Your task to perform on an android device: turn notification dots on Image 0: 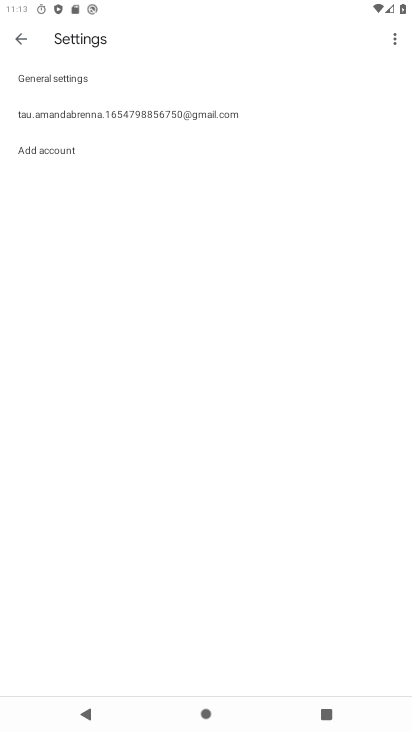
Step 0: press home button
Your task to perform on an android device: turn notification dots on Image 1: 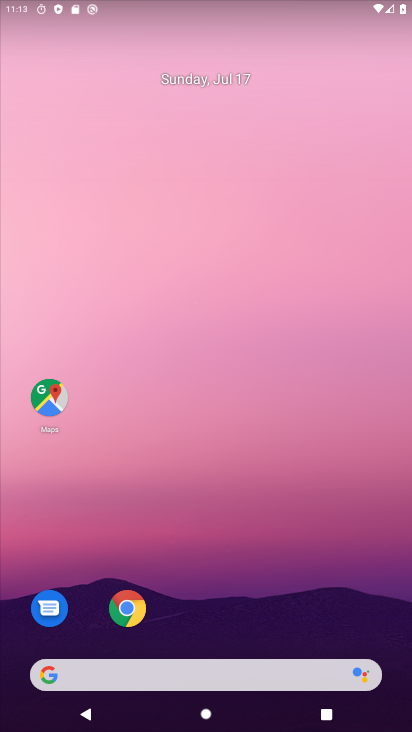
Step 1: drag from (255, 604) to (272, 91)
Your task to perform on an android device: turn notification dots on Image 2: 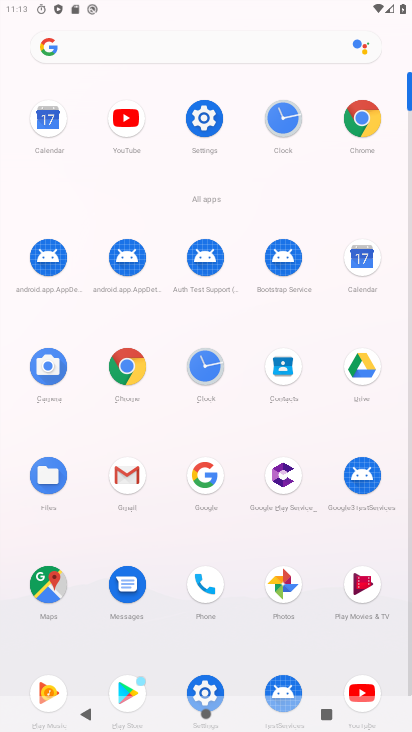
Step 2: click (208, 117)
Your task to perform on an android device: turn notification dots on Image 3: 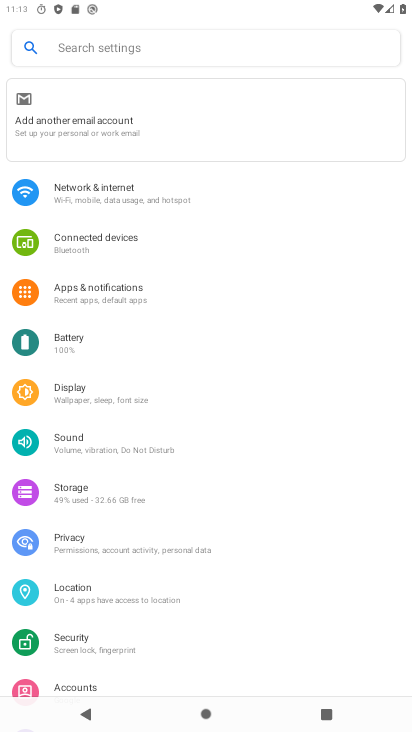
Step 3: click (131, 300)
Your task to perform on an android device: turn notification dots on Image 4: 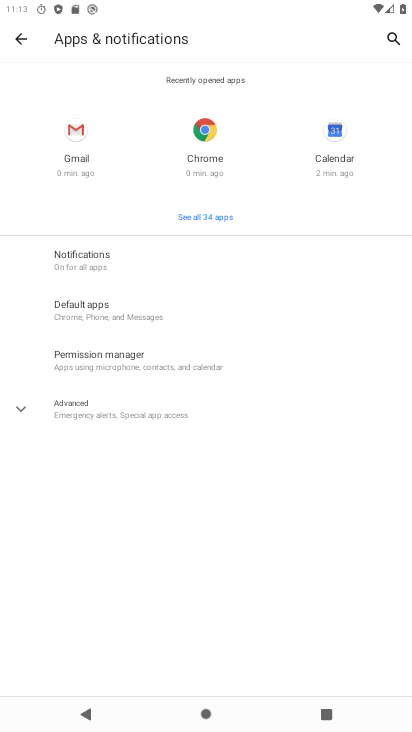
Step 4: click (101, 270)
Your task to perform on an android device: turn notification dots on Image 5: 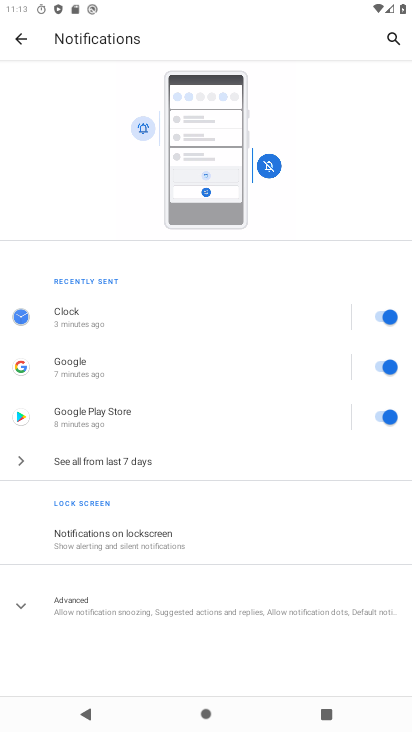
Step 5: click (137, 595)
Your task to perform on an android device: turn notification dots on Image 6: 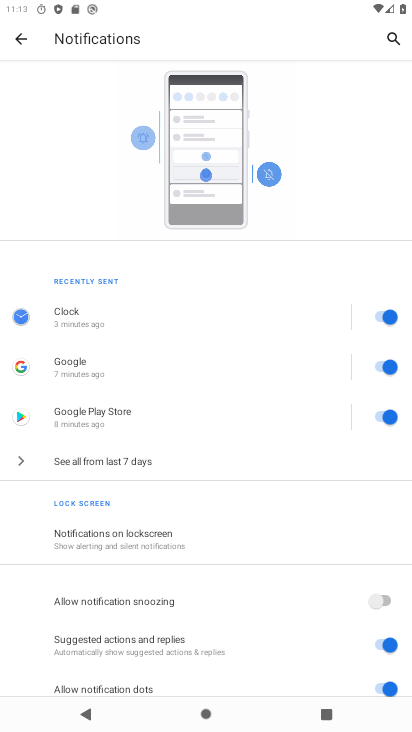
Step 6: task complete